Your task to perform on an android device: clear history in the chrome app Image 0: 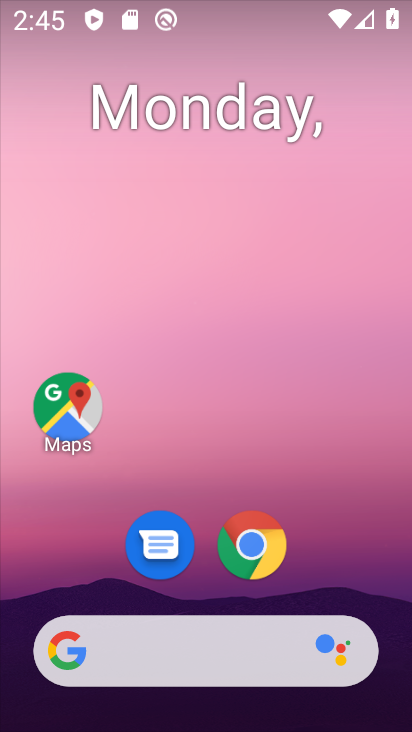
Step 0: click (259, 522)
Your task to perform on an android device: clear history in the chrome app Image 1: 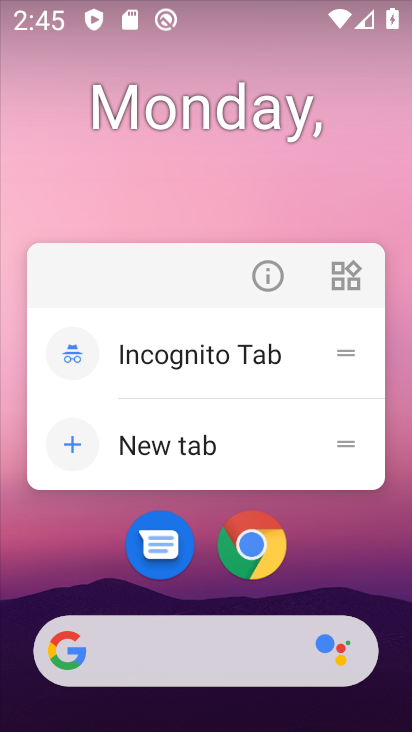
Step 1: click (258, 534)
Your task to perform on an android device: clear history in the chrome app Image 2: 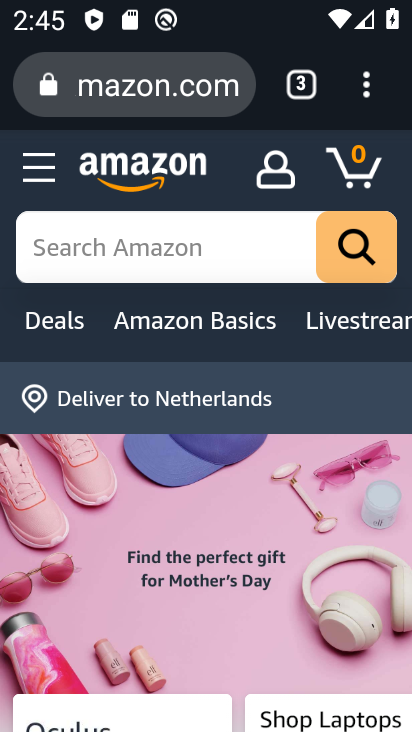
Step 2: drag from (362, 85) to (147, 609)
Your task to perform on an android device: clear history in the chrome app Image 3: 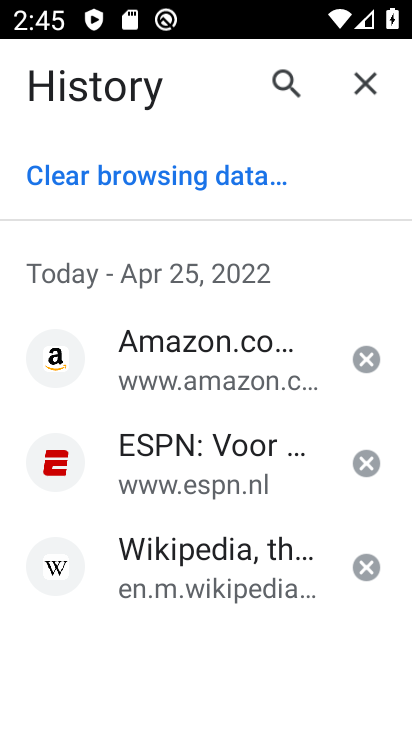
Step 3: click (131, 176)
Your task to perform on an android device: clear history in the chrome app Image 4: 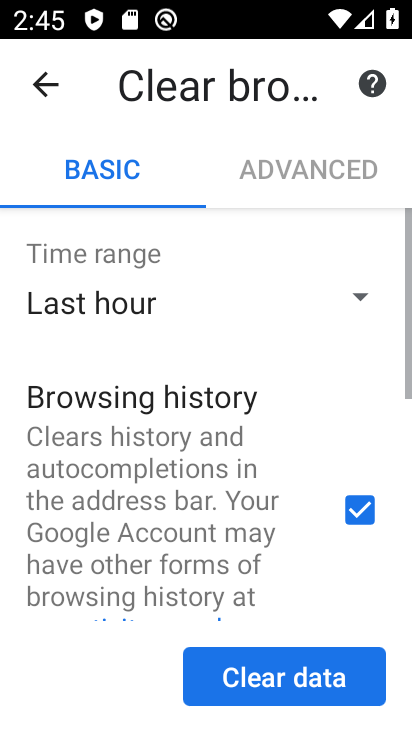
Step 4: click (251, 682)
Your task to perform on an android device: clear history in the chrome app Image 5: 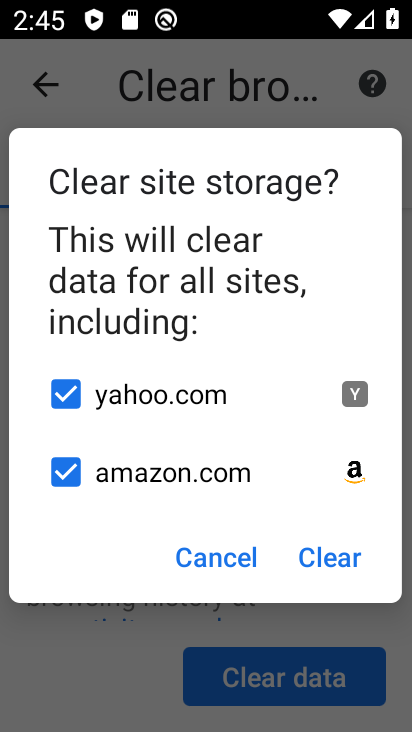
Step 5: click (341, 559)
Your task to perform on an android device: clear history in the chrome app Image 6: 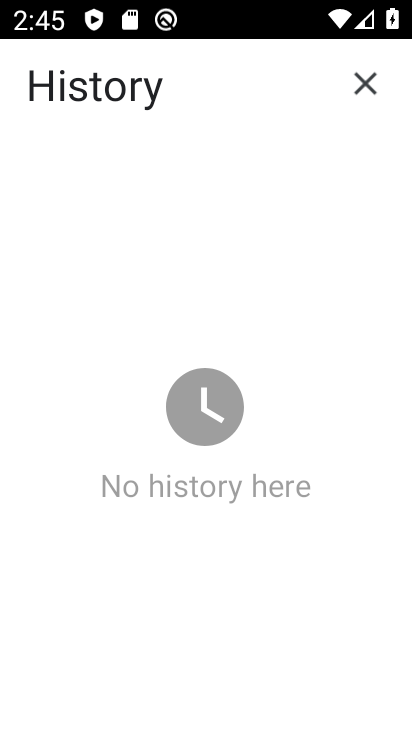
Step 6: task complete